Your task to perform on an android device: turn off picture-in-picture Image 0: 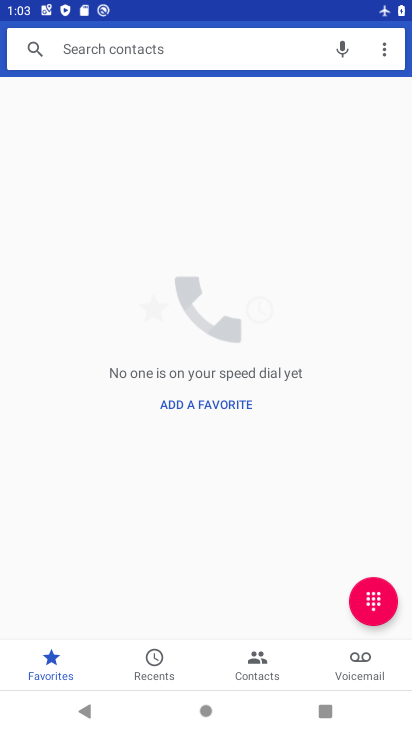
Step 0: press home button
Your task to perform on an android device: turn off picture-in-picture Image 1: 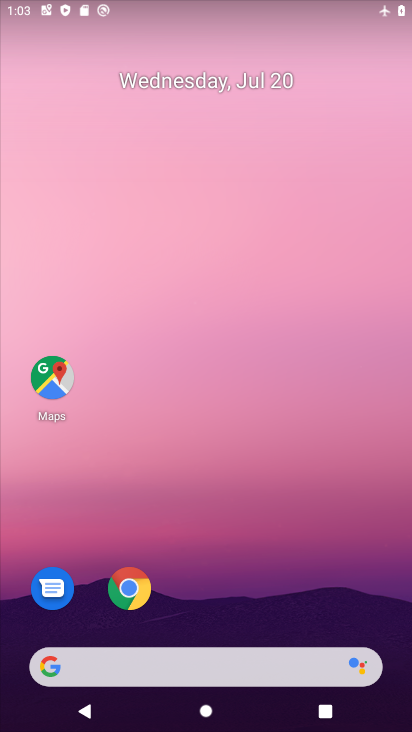
Step 1: click (132, 590)
Your task to perform on an android device: turn off picture-in-picture Image 2: 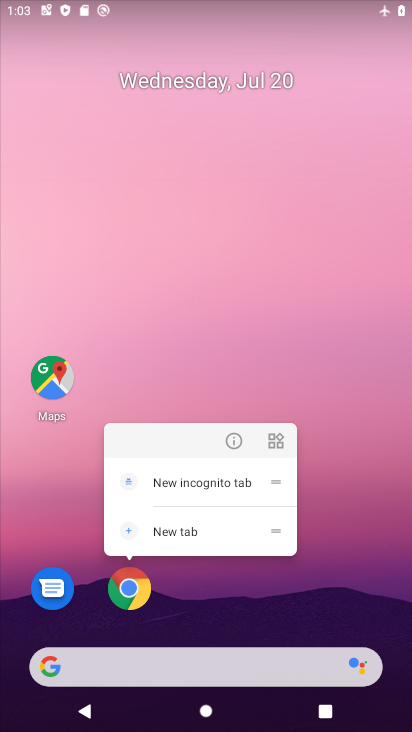
Step 2: click (225, 442)
Your task to perform on an android device: turn off picture-in-picture Image 3: 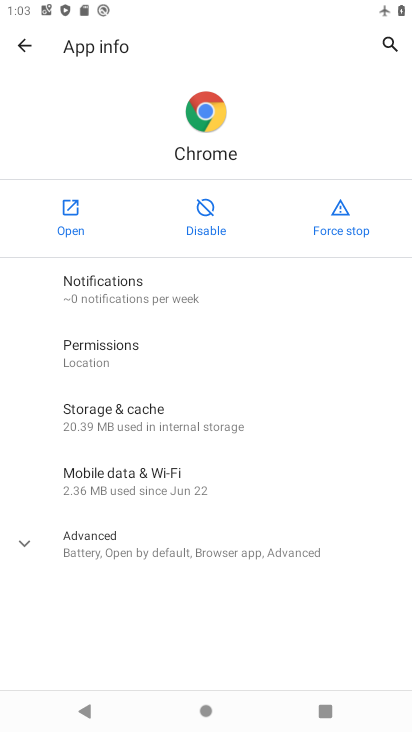
Step 3: click (23, 539)
Your task to perform on an android device: turn off picture-in-picture Image 4: 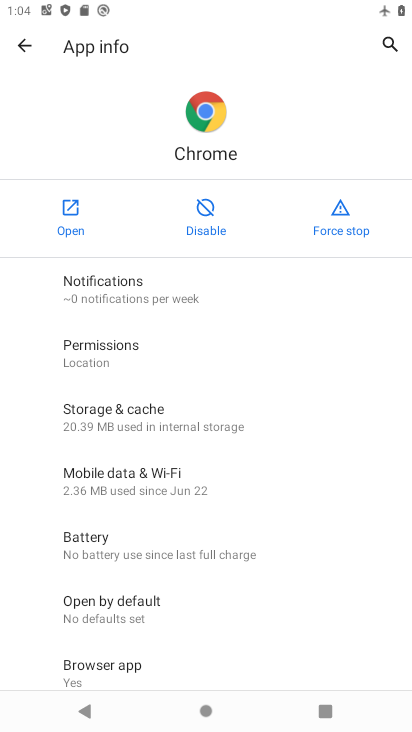
Step 4: drag from (286, 560) to (249, 187)
Your task to perform on an android device: turn off picture-in-picture Image 5: 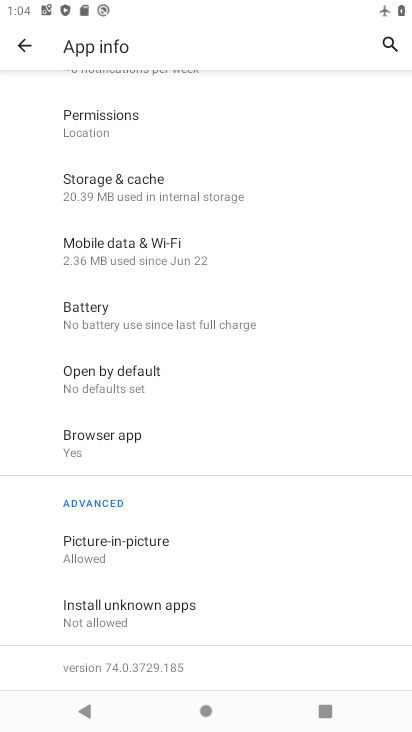
Step 5: click (134, 551)
Your task to perform on an android device: turn off picture-in-picture Image 6: 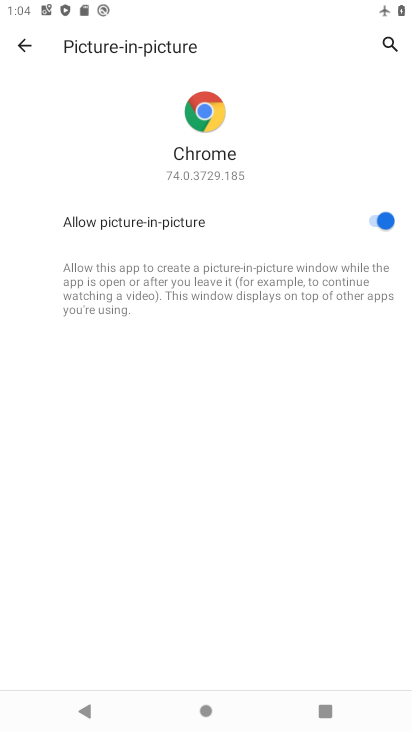
Step 6: click (367, 212)
Your task to perform on an android device: turn off picture-in-picture Image 7: 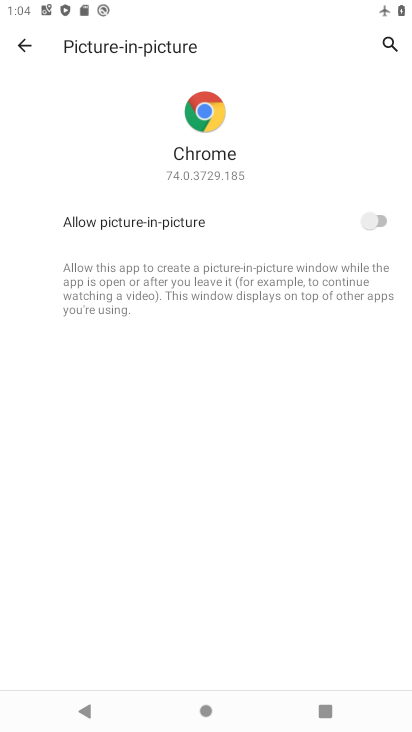
Step 7: task complete